Your task to perform on an android device: Search for seafood restaurants on Google Maps Image 0: 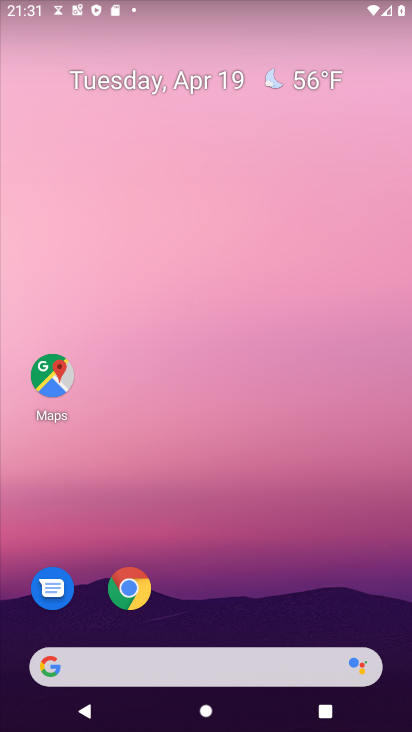
Step 0: click (54, 380)
Your task to perform on an android device: Search for seafood restaurants on Google Maps Image 1: 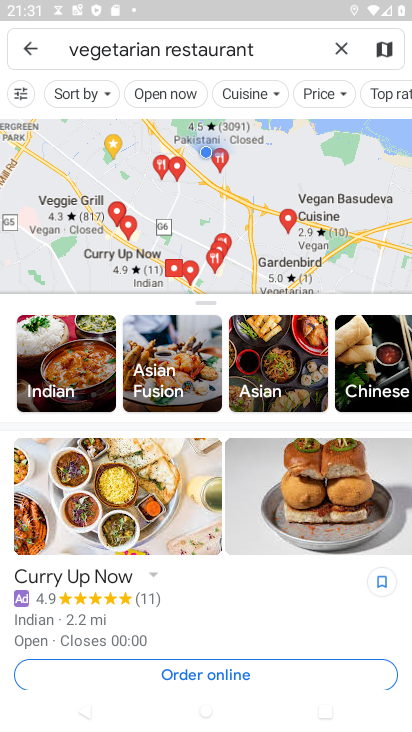
Step 1: click (340, 50)
Your task to perform on an android device: Search for seafood restaurants on Google Maps Image 2: 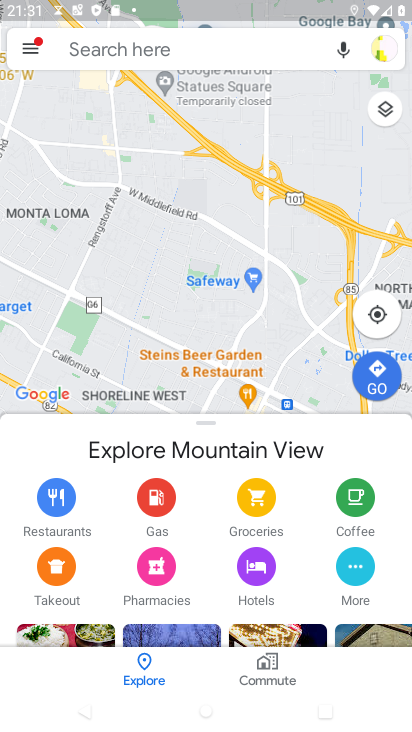
Step 2: click (273, 48)
Your task to perform on an android device: Search for seafood restaurants on Google Maps Image 3: 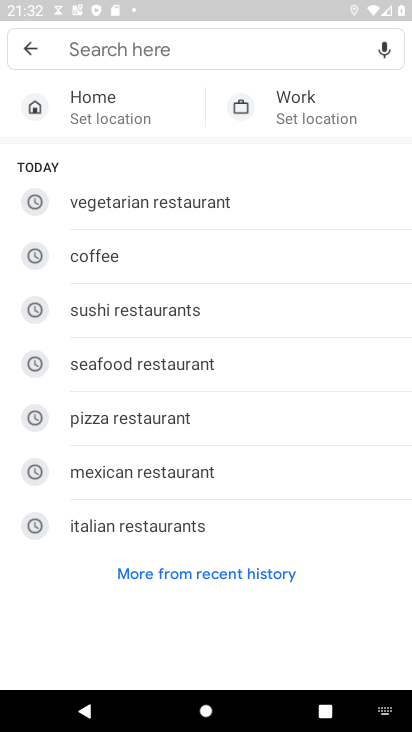
Step 3: type "seafood restaurants"
Your task to perform on an android device: Search for seafood restaurants on Google Maps Image 4: 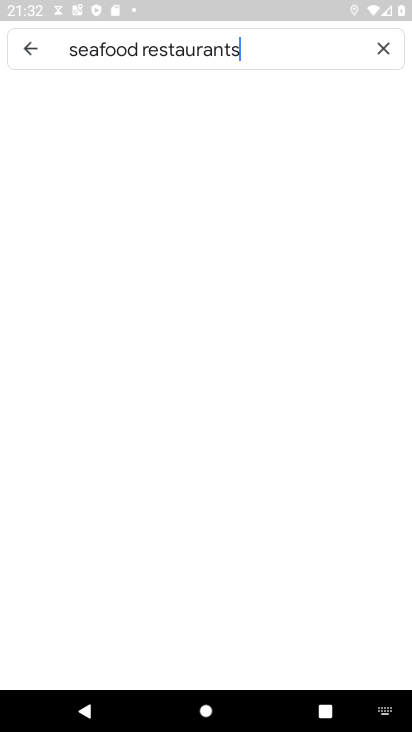
Step 4: type ""
Your task to perform on an android device: Search for seafood restaurants on Google Maps Image 5: 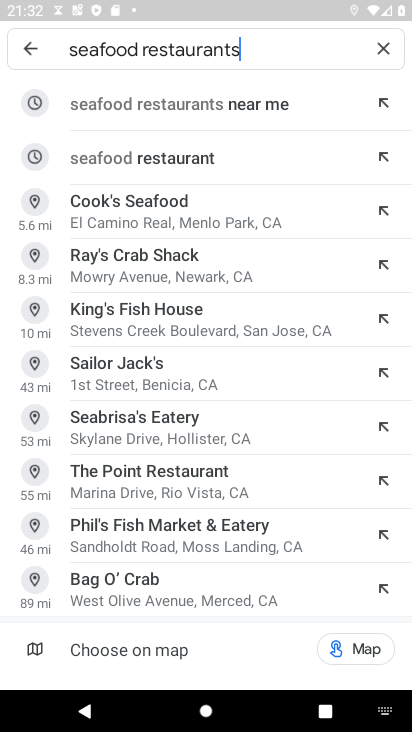
Step 5: click (206, 161)
Your task to perform on an android device: Search for seafood restaurants on Google Maps Image 6: 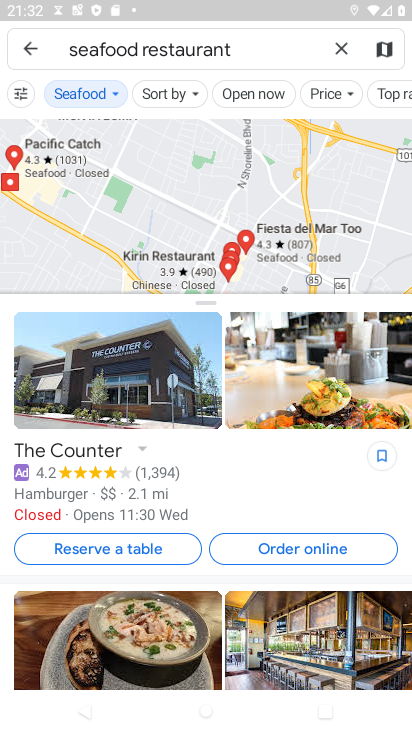
Step 6: task complete